Your task to perform on an android device: Open Google Maps Image 0: 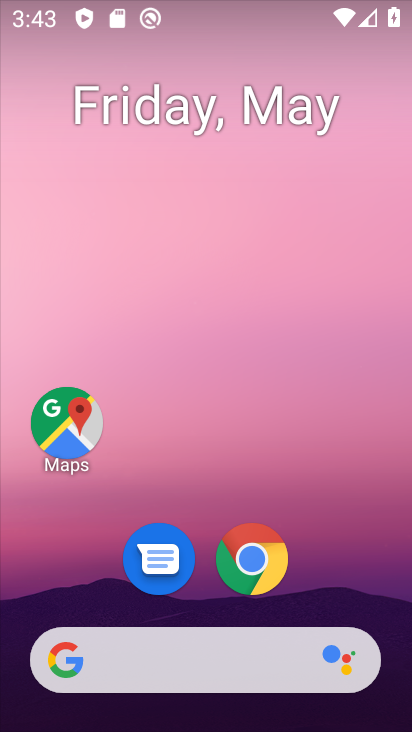
Step 0: click (67, 420)
Your task to perform on an android device: Open Google Maps Image 1: 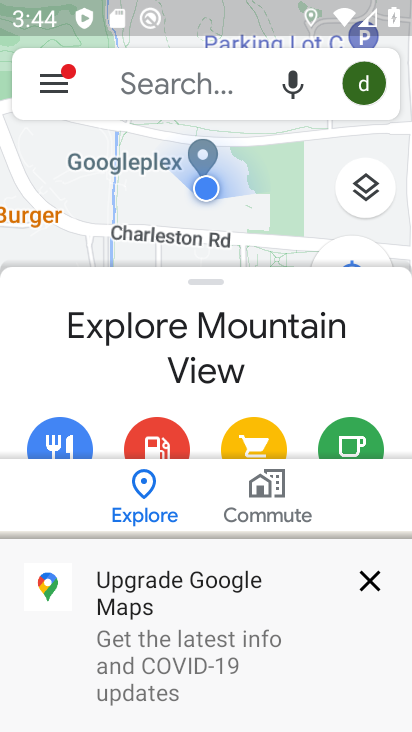
Step 1: task complete